Your task to perform on an android device: Open Google Chrome and click the shortcut for Amazon.com Image 0: 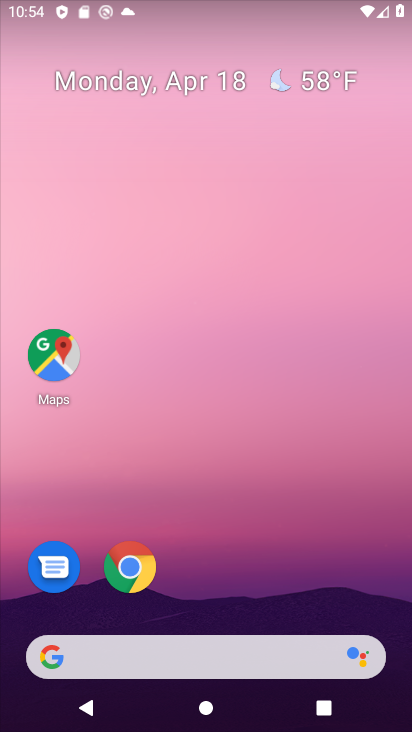
Step 0: click (285, 604)
Your task to perform on an android device: Open Google Chrome and click the shortcut for Amazon.com Image 1: 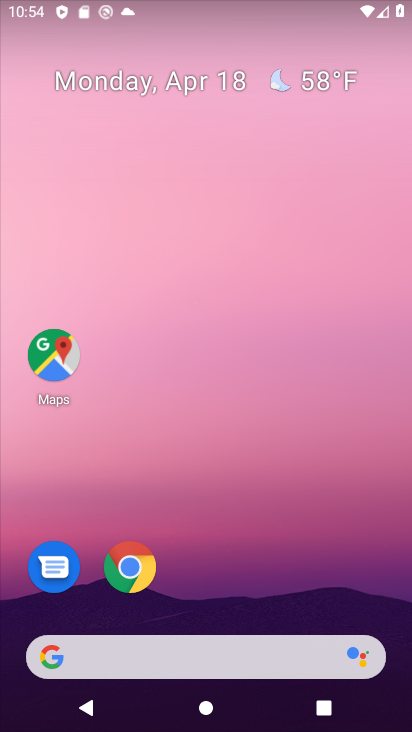
Step 1: click (124, 567)
Your task to perform on an android device: Open Google Chrome and click the shortcut for Amazon.com Image 2: 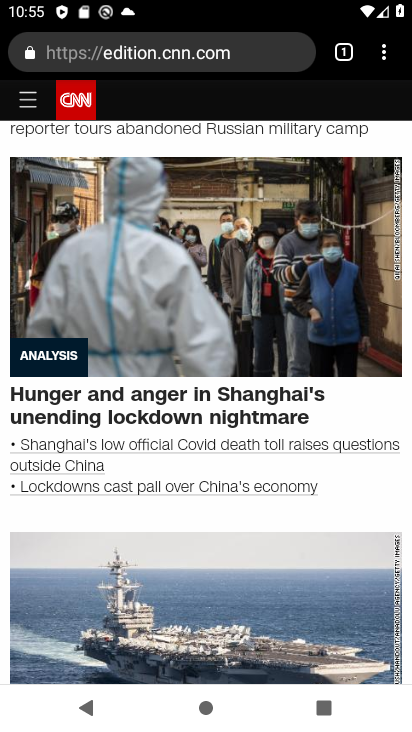
Step 2: click (386, 59)
Your task to perform on an android device: Open Google Chrome and click the shortcut for Amazon.com Image 3: 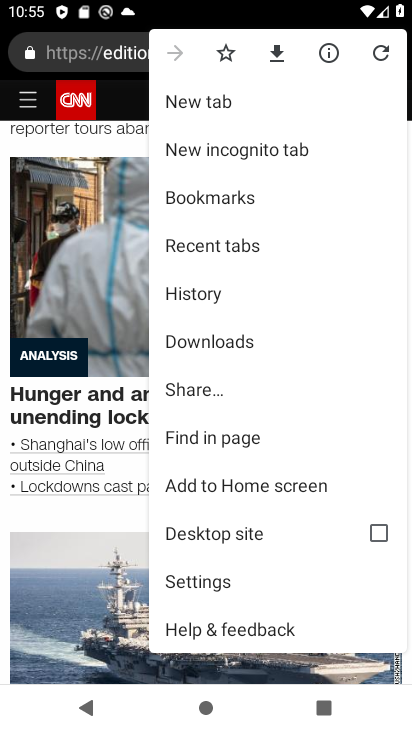
Step 3: click (193, 97)
Your task to perform on an android device: Open Google Chrome and click the shortcut for Amazon.com Image 4: 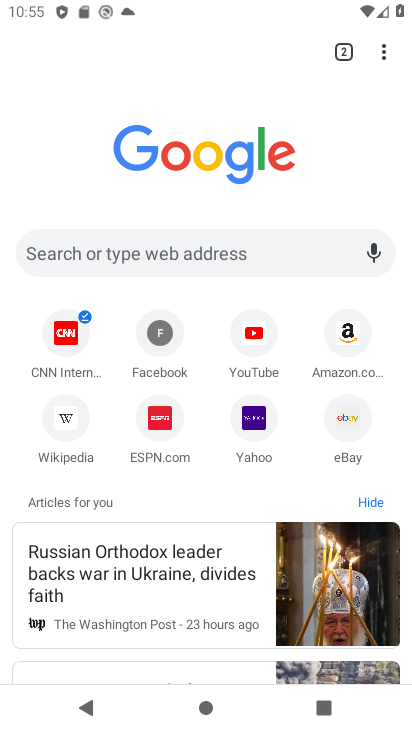
Step 4: click (345, 327)
Your task to perform on an android device: Open Google Chrome and click the shortcut for Amazon.com Image 5: 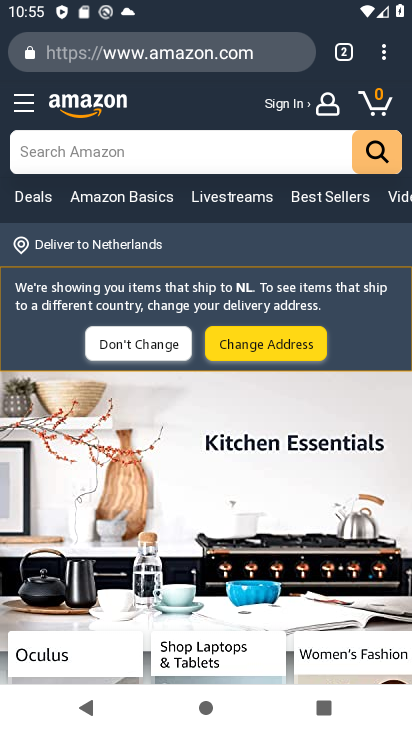
Step 5: task complete